Your task to perform on an android device: turn on javascript in the chrome app Image 0: 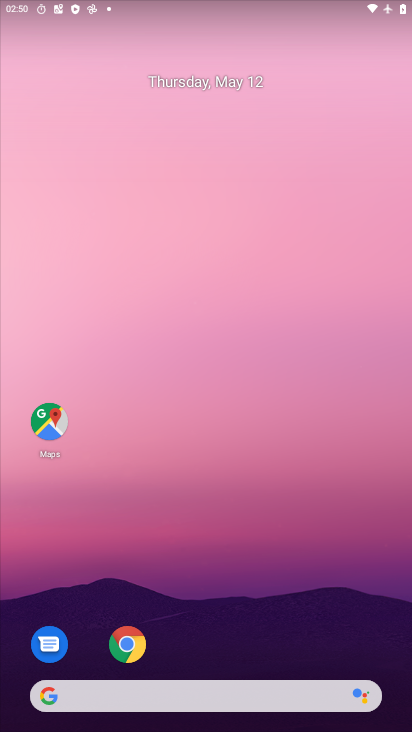
Step 0: click (126, 642)
Your task to perform on an android device: turn on javascript in the chrome app Image 1: 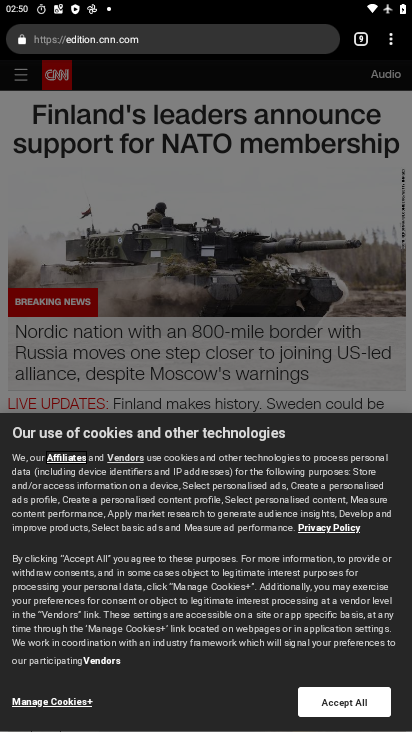
Step 1: click (391, 39)
Your task to perform on an android device: turn on javascript in the chrome app Image 2: 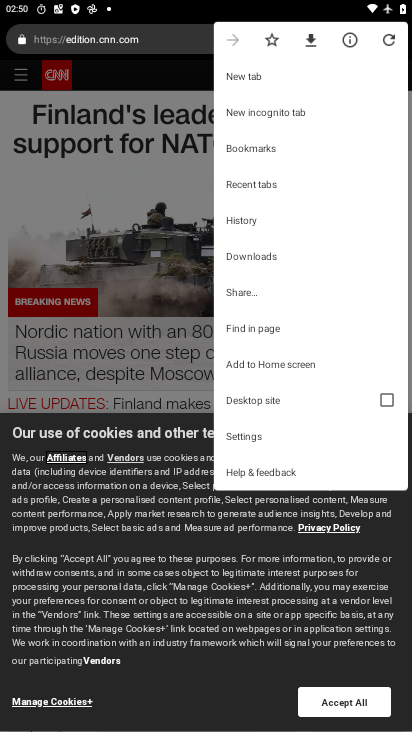
Step 2: click (256, 436)
Your task to perform on an android device: turn on javascript in the chrome app Image 3: 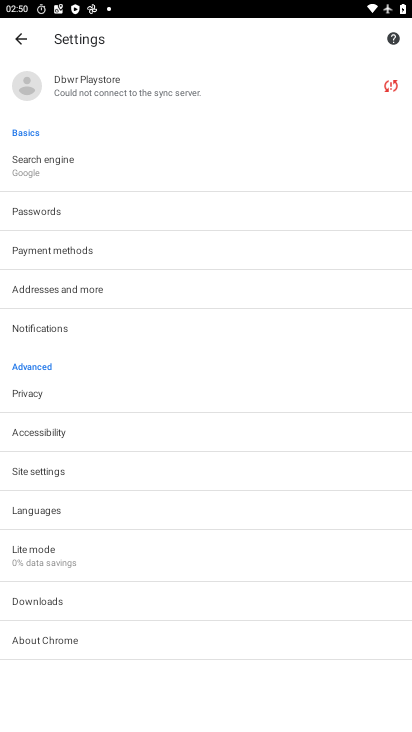
Step 3: click (111, 473)
Your task to perform on an android device: turn on javascript in the chrome app Image 4: 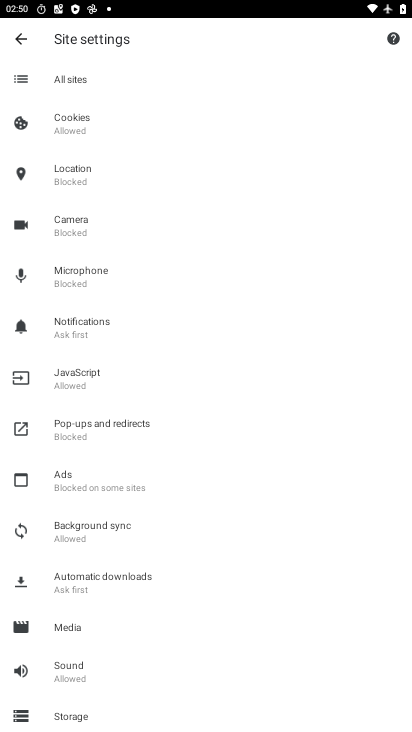
Step 4: click (154, 372)
Your task to perform on an android device: turn on javascript in the chrome app Image 5: 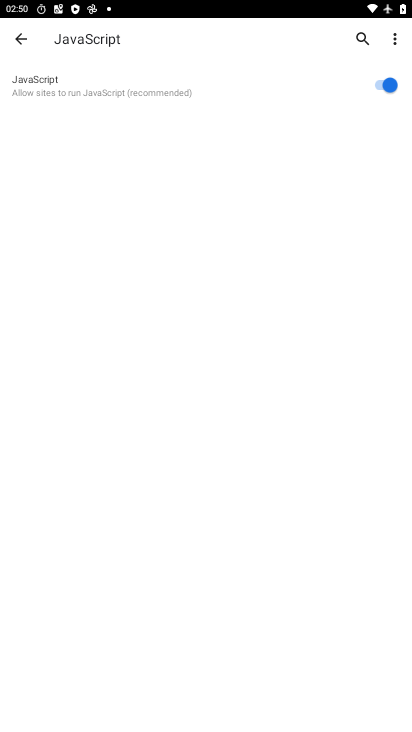
Step 5: task complete